Your task to perform on an android device: toggle improve location accuracy Image 0: 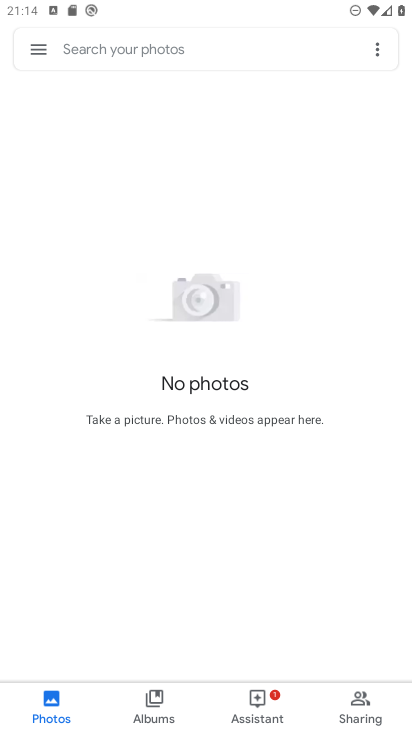
Step 0: press home button
Your task to perform on an android device: toggle improve location accuracy Image 1: 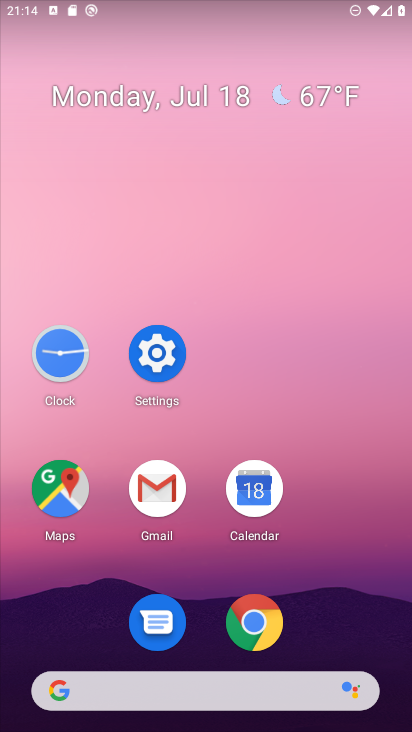
Step 1: click (166, 344)
Your task to perform on an android device: toggle improve location accuracy Image 2: 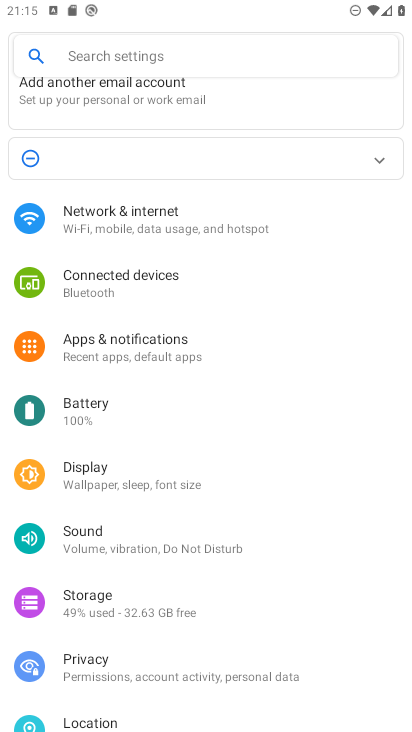
Step 2: click (94, 720)
Your task to perform on an android device: toggle improve location accuracy Image 3: 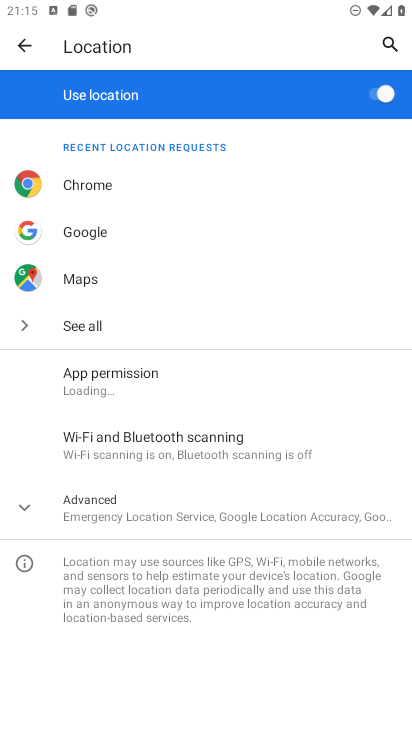
Step 3: click (28, 517)
Your task to perform on an android device: toggle improve location accuracy Image 4: 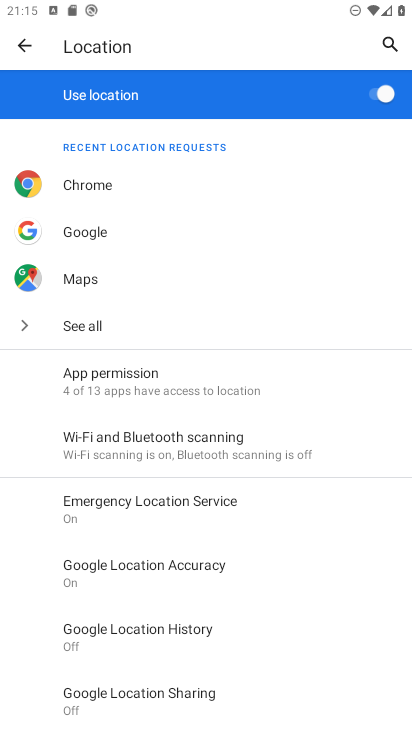
Step 4: click (170, 575)
Your task to perform on an android device: toggle improve location accuracy Image 5: 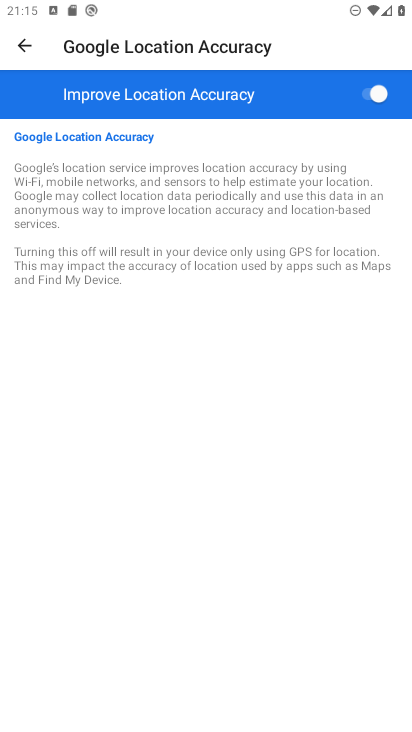
Step 5: click (367, 92)
Your task to perform on an android device: toggle improve location accuracy Image 6: 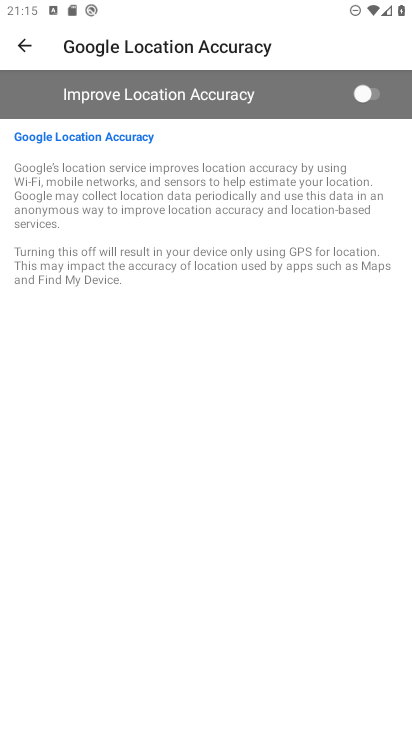
Step 6: task complete